Your task to perform on an android device: toggle translation in the chrome app Image 0: 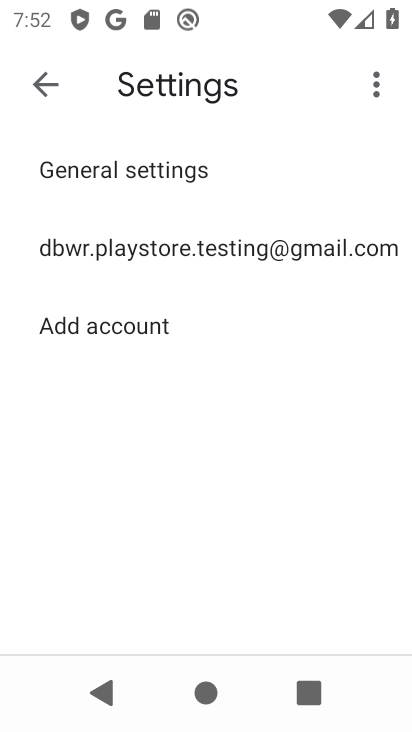
Step 0: press home button
Your task to perform on an android device: toggle translation in the chrome app Image 1: 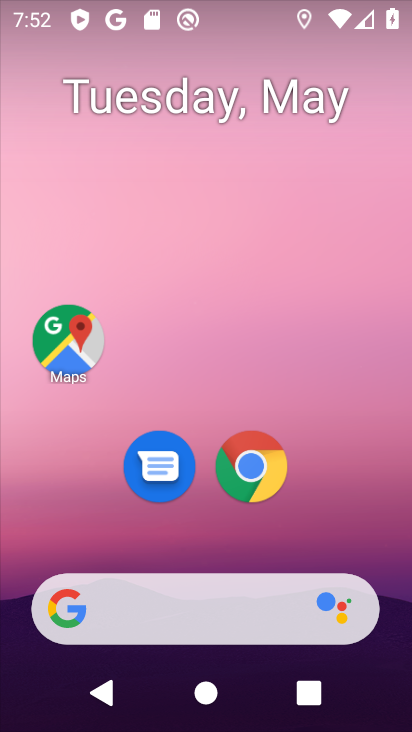
Step 1: click (260, 465)
Your task to perform on an android device: toggle translation in the chrome app Image 2: 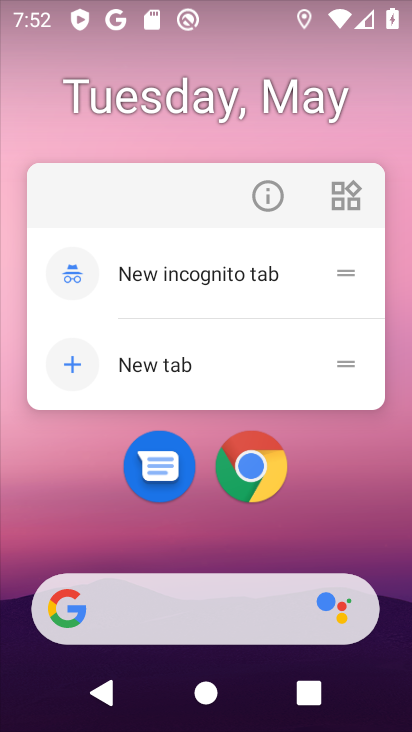
Step 2: click (263, 471)
Your task to perform on an android device: toggle translation in the chrome app Image 3: 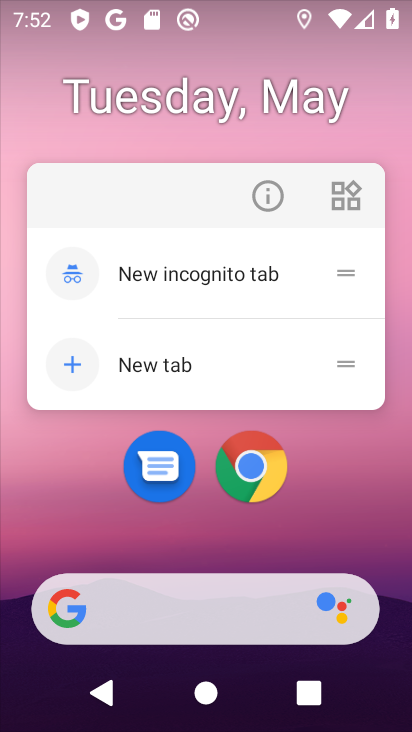
Step 3: click (254, 464)
Your task to perform on an android device: toggle translation in the chrome app Image 4: 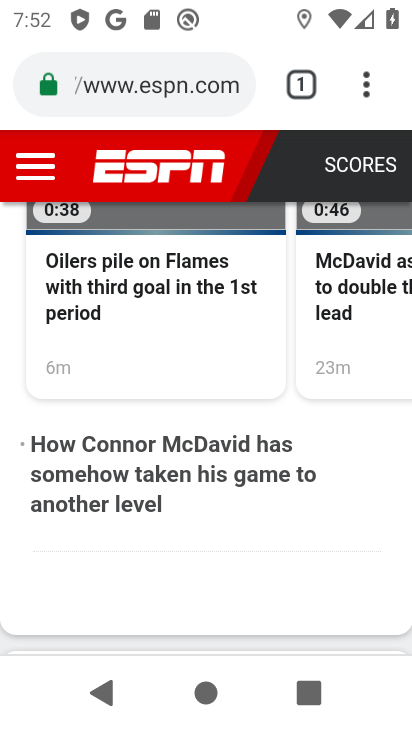
Step 4: click (371, 94)
Your task to perform on an android device: toggle translation in the chrome app Image 5: 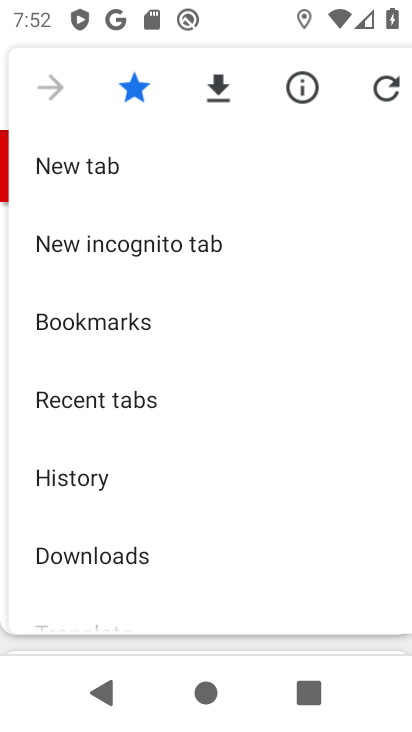
Step 5: drag from (226, 575) to (253, 184)
Your task to perform on an android device: toggle translation in the chrome app Image 6: 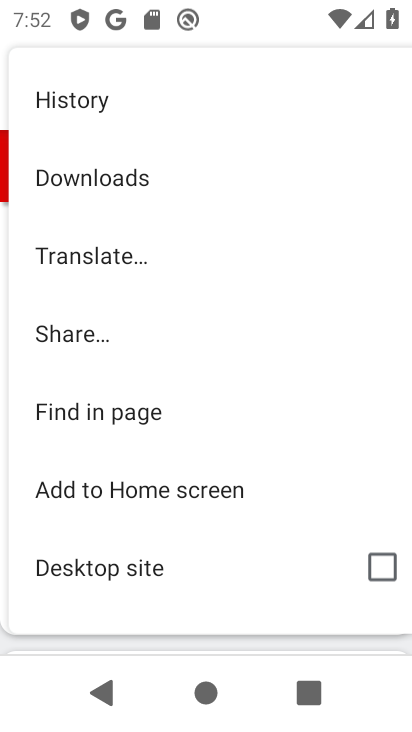
Step 6: drag from (118, 591) to (137, 272)
Your task to perform on an android device: toggle translation in the chrome app Image 7: 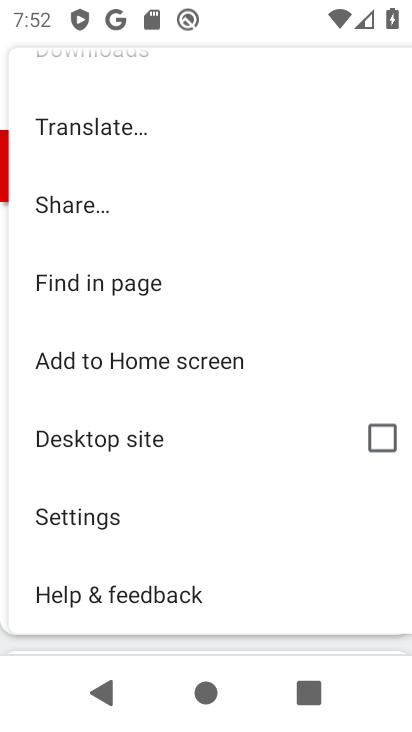
Step 7: click (107, 517)
Your task to perform on an android device: toggle translation in the chrome app Image 8: 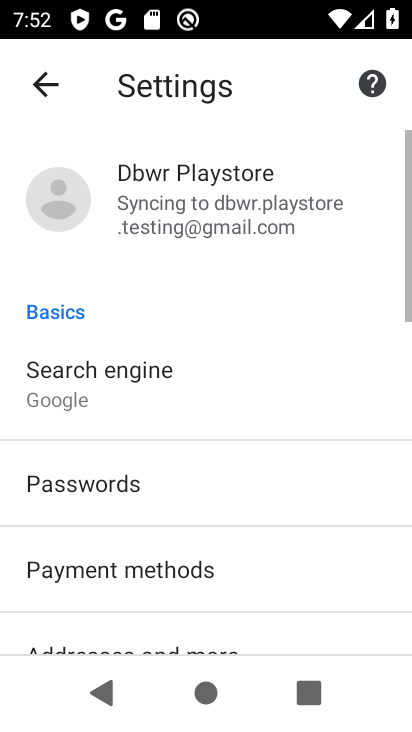
Step 8: drag from (140, 617) to (190, 253)
Your task to perform on an android device: toggle translation in the chrome app Image 9: 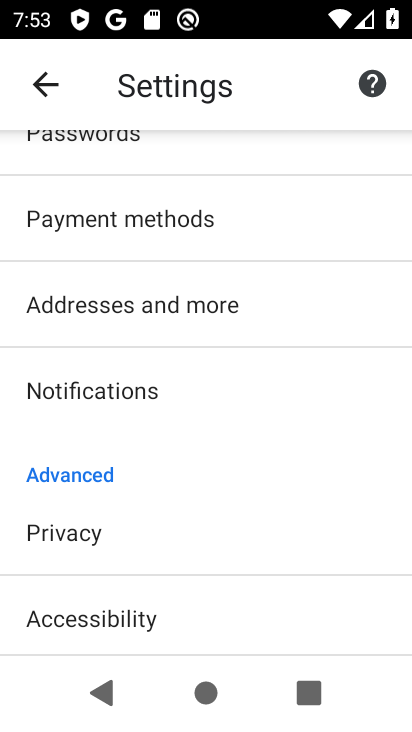
Step 9: drag from (83, 632) to (128, 265)
Your task to perform on an android device: toggle translation in the chrome app Image 10: 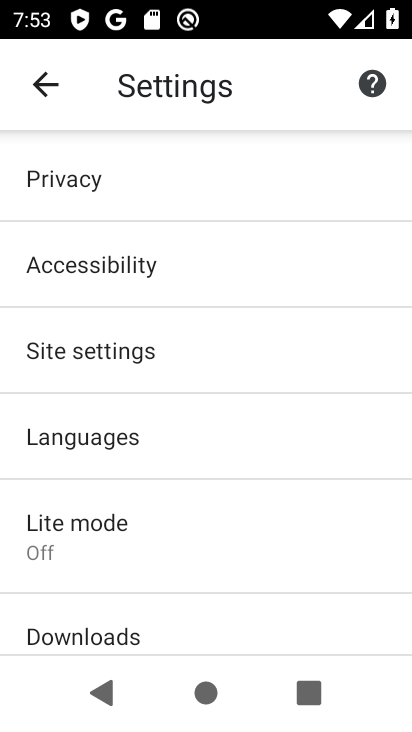
Step 10: click (75, 447)
Your task to perform on an android device: toggle translation in the chrome app Image 11: 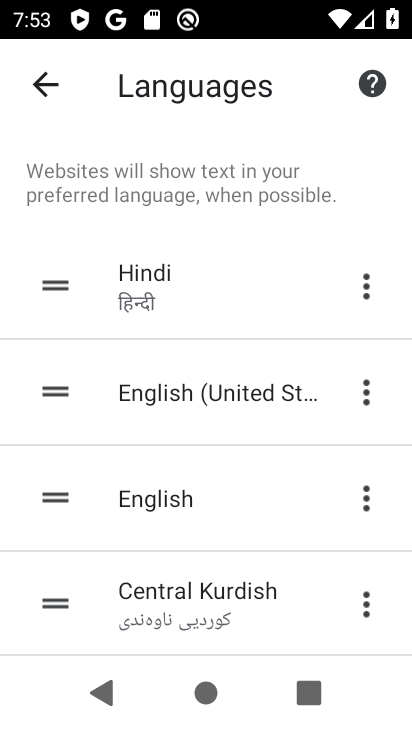
Step 11: drag from (225, 636) to (264, 282)
Your task to perform on an android device: toggle translation in the chrome app Image 12: 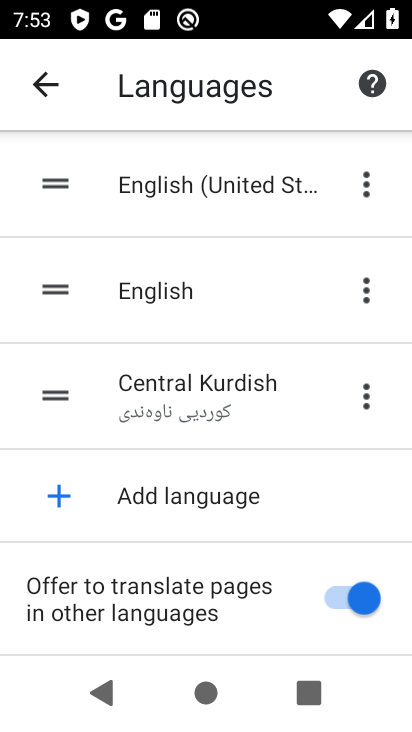
Step 12: click (337, 604)
Your task to perform on an android device: toggle translation in the chrome app Image 13: 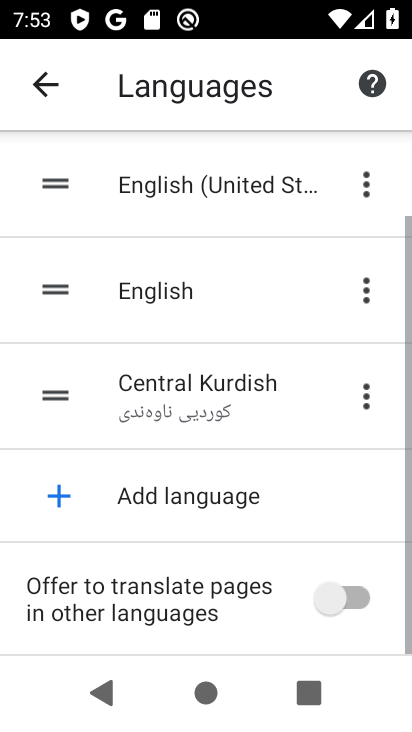
Step 13: task complete